Your task to perform on an android device: Play the last video I watched on Youtube Image 0: 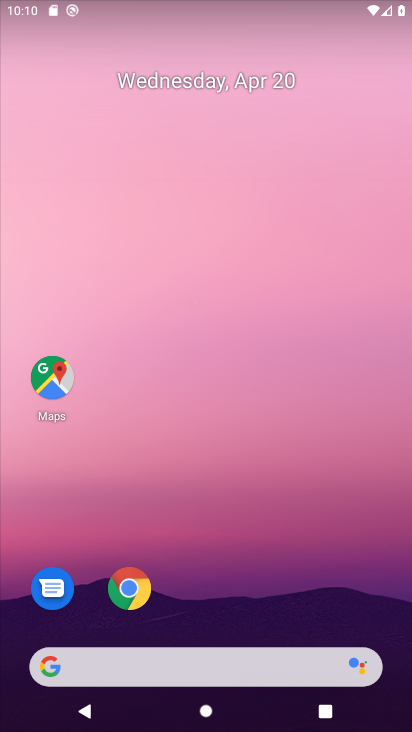
Step 0: drag from (252, 522) to (274, 108)
Your task to perform on an android device: Play the last video I watched on Youtube Image 1: 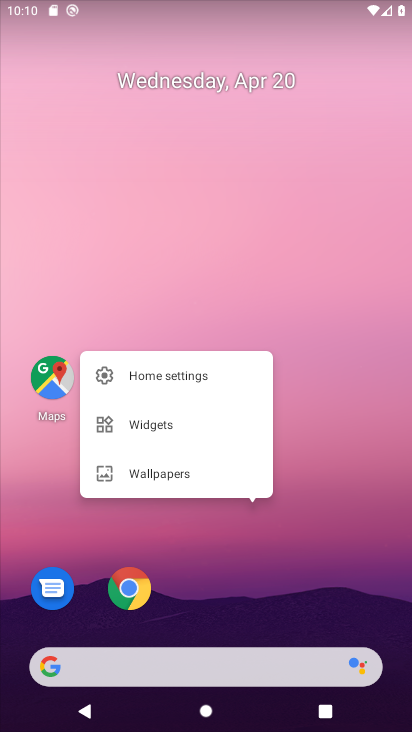
Step 1: click (286, 587)
Your task to perform on an android device: Play the last video I watched on Youtube Image 2: 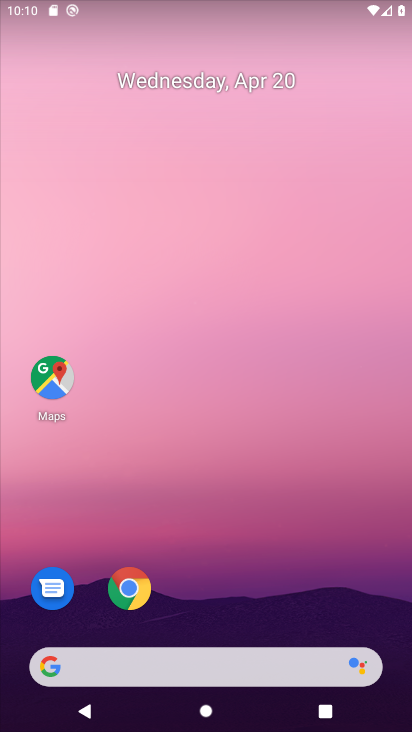
Step 2: drag from (272, 602) to (240, 83)
Your task to perform on an android device: Play the last video I watched on Youtube Image 3: 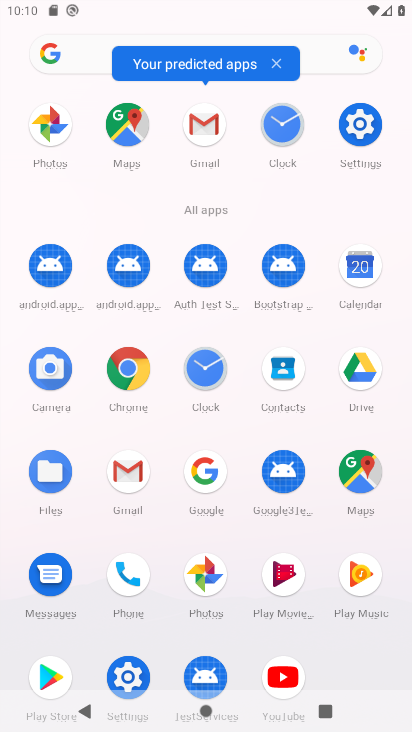
Step 3: click (283, 681)
Your task to perform on an android device: Play the last video I watched on Youtube Image 4: 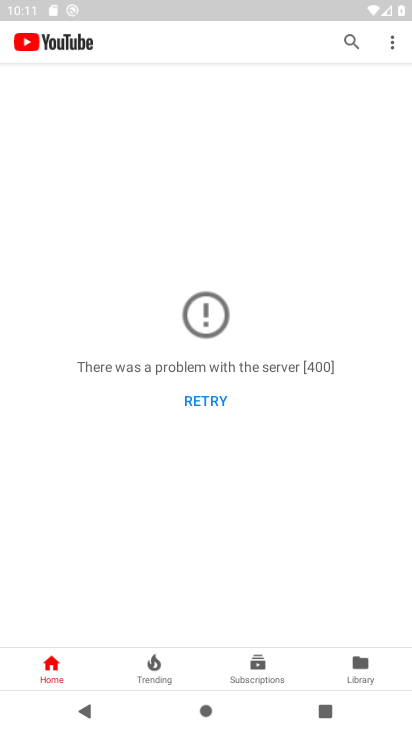
Step 4: click (197, 404)
Your task to perform on an android device: Play the last video I watched on Youtube Image 5: 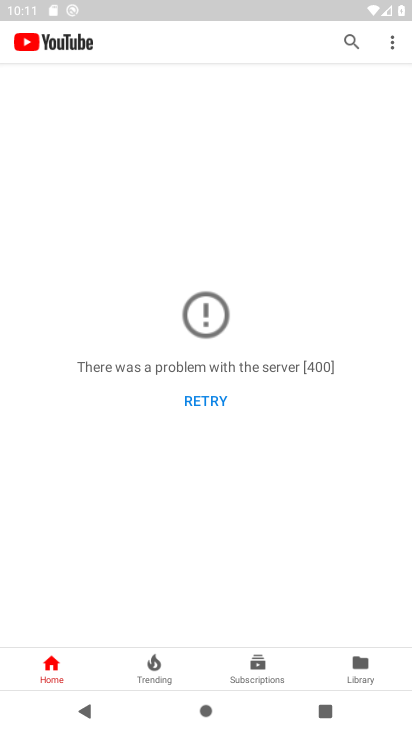
Step 5: click (205, 400)
Your task to perform on an android device: Play the last video I watched on Youtube Image 6: 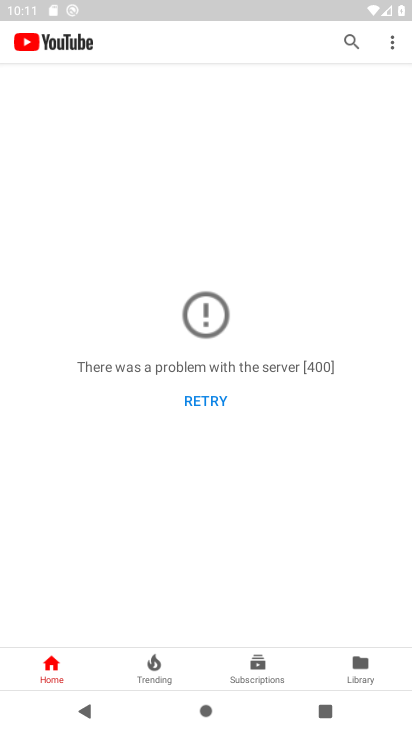
Step 6: click (205, 400)
Your task to perform on an android device: Play the last video I watched on Youtube Image 7: 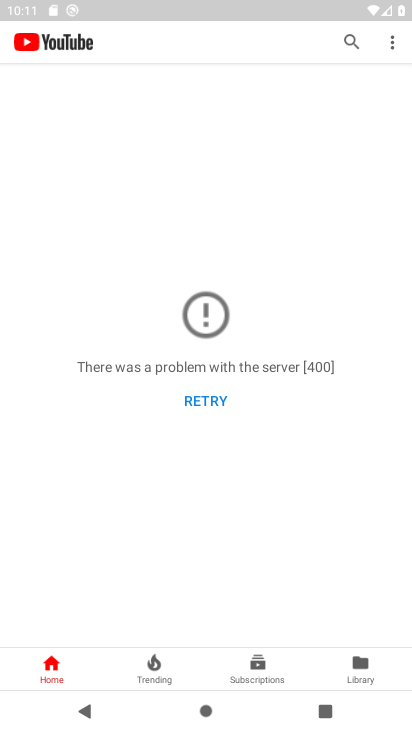
Step 7: task complete